Your task to perform on an android device: Search for seafood restaurants on Google Maps Image 0: 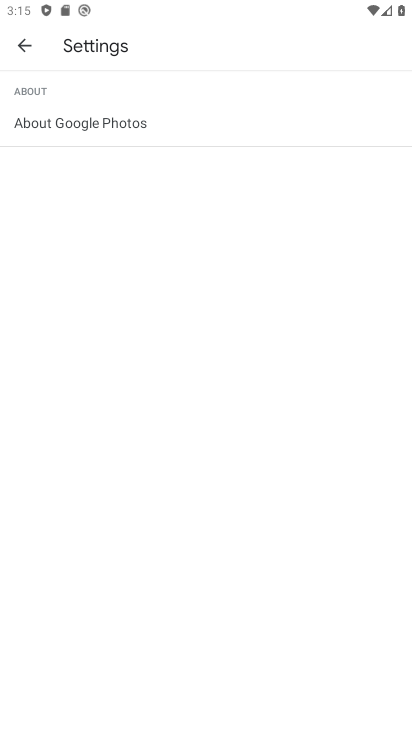
Step 0: press home button
Your task to perform on an android device: Search for seafood restaurants on Google Maps Image 1: 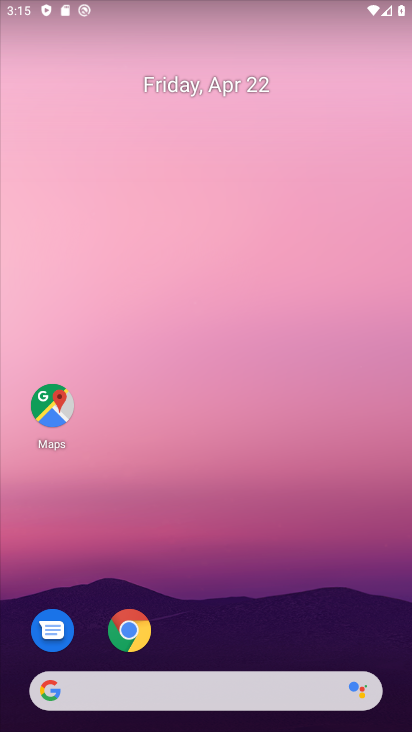
Step 1: click (45, 405)
Your task to perform on an android device: Search for seafood restaurants on Google Maps Image 2: 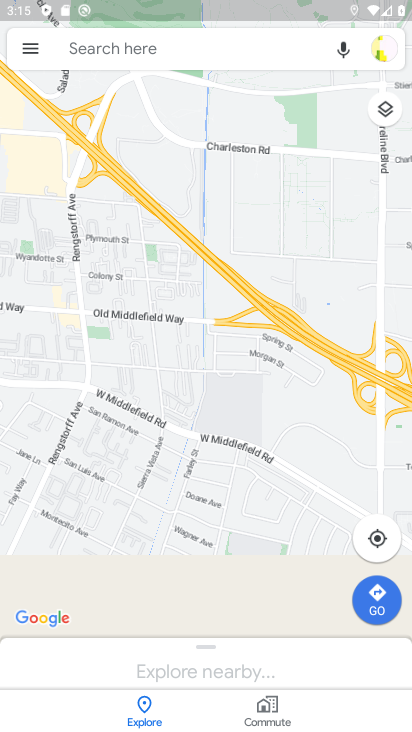
Step 2: click (175, 49)
Your task to perform on an android device: Search for seafood restaurants on Google Maps Image 3: 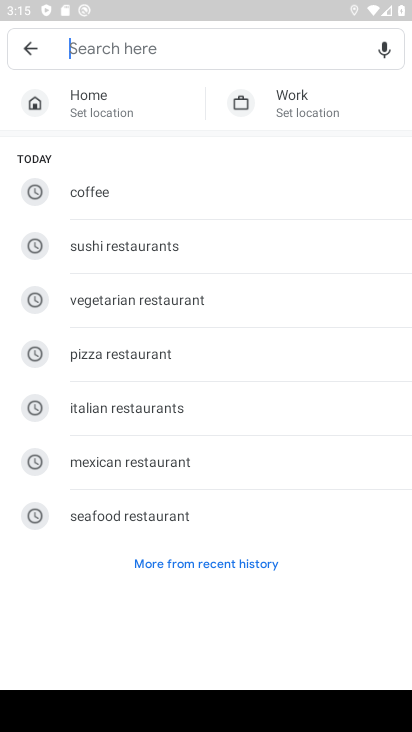
Step 3: type "seafood restaurants"
Your task to perform on an android device: Search for seafood restaurants on Google Maps Image 4: 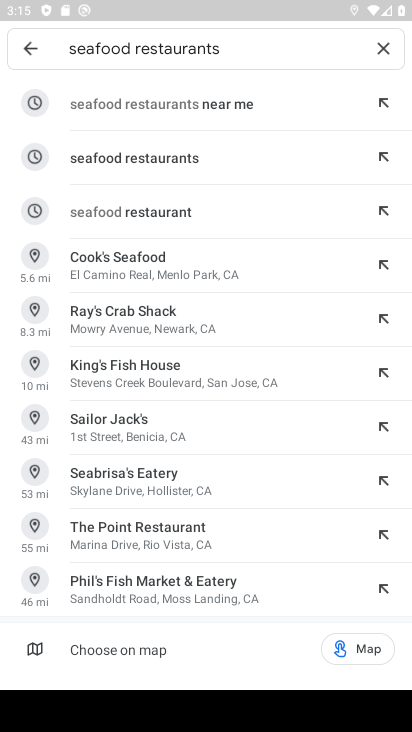
Step 4: click (147, 159)
Your task to perform on an android device: Search for seafood restaurants on Google Maps Image 5: 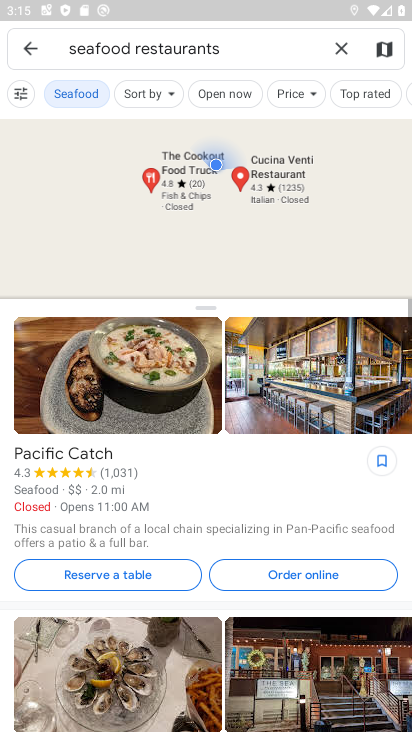
Step 5: task complete